Your task to perform on an android device: turn on translation in the chrome app Image 0: 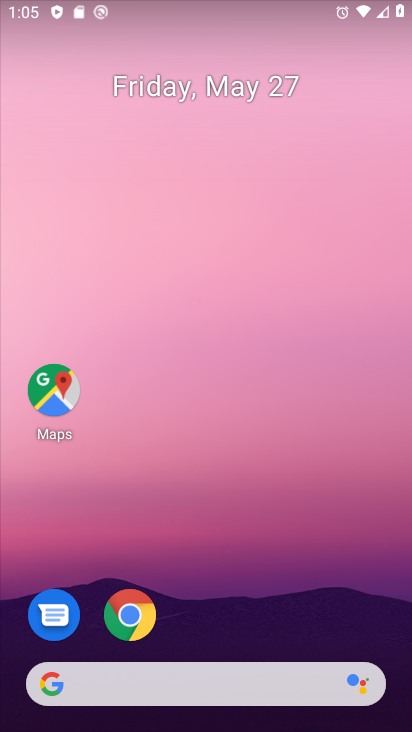
Step 0: click (136, 629)
Your task to perform on an android device: turn on translation in the chrome app Image 1: 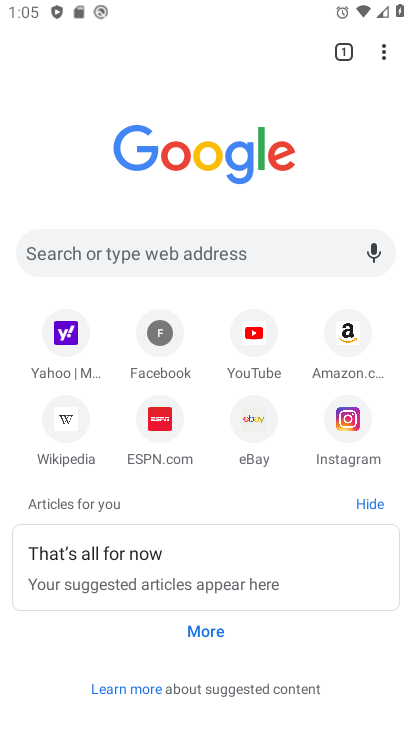
Step 1: click (393, 49)
Your task to perform on an android device: turn on translation in the chrome app Image 2: 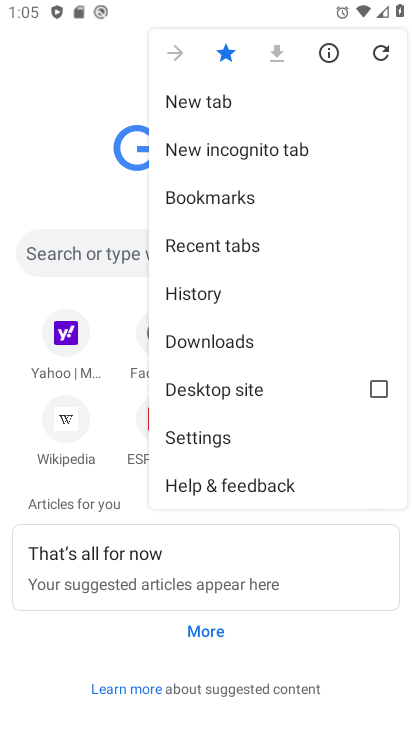
Step 2: click (201, 443)
Your task to perform on an android device: turn on translation in the chrome app Image 3: 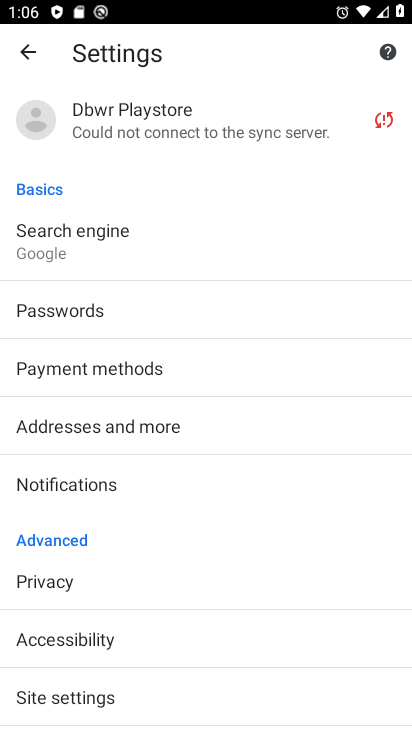
Step 3: drag from (300, 645) to (266, 365)
Your task to perform on an android device: turn on translation in the chrome app Image 4: 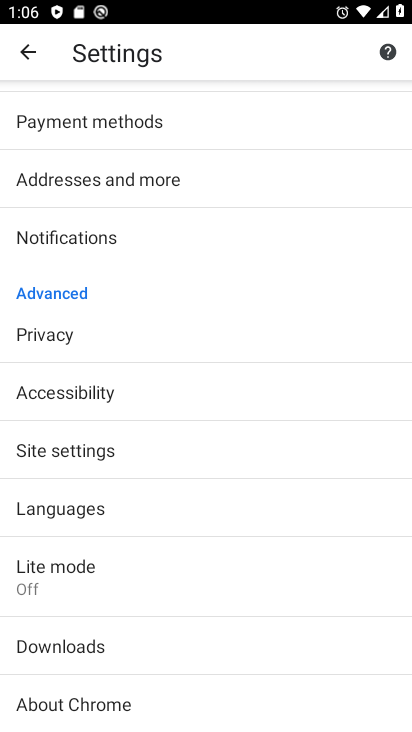
Step 4: click (55, 516)
Your task to perform on an android device: turn on translation in the chrome app Image 5: 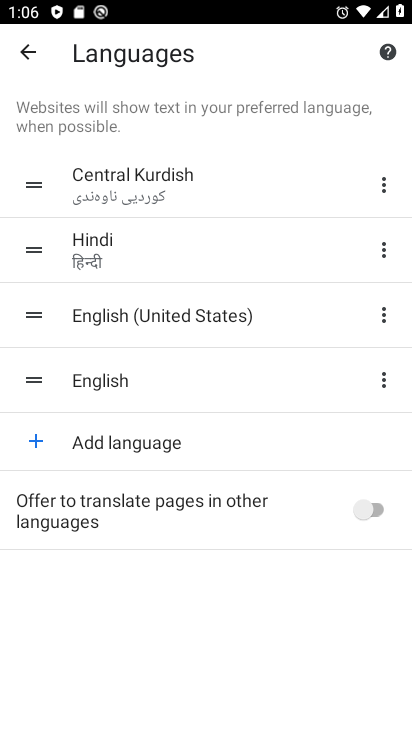
Step 5: click (364, 506)
Your task to perform on an android device: turn on translation in the chrome app Image 6: 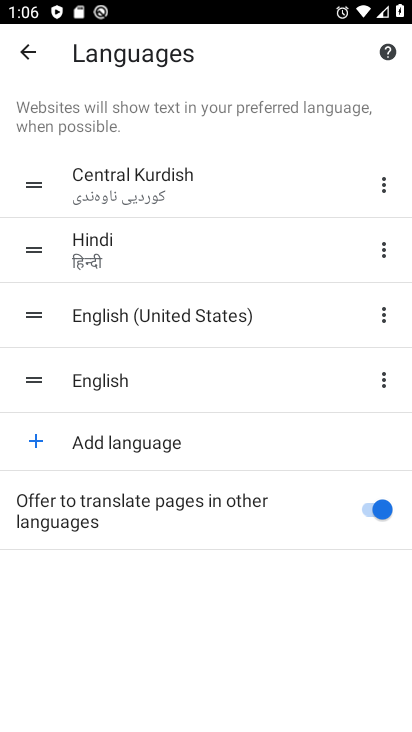
Step 6: task complete